Your task to perform on an android device: open app "Expedia: Hotels, Flights & Car" (install if not already installed) Image 0: 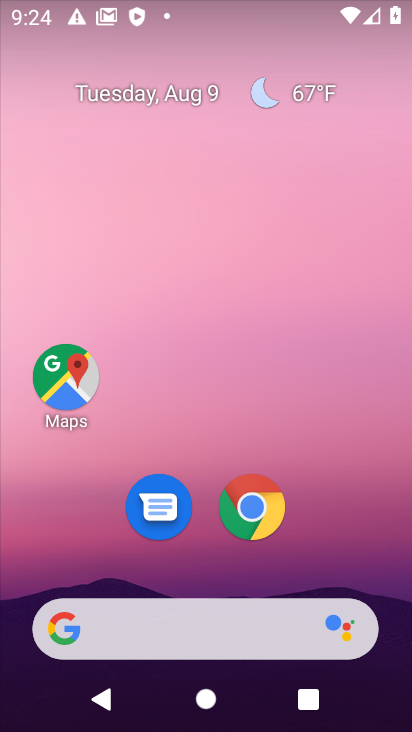
Step 0: drag from (185, 647) to (150, 34)
Your task to perform on an android device: open app "Expedia: Hotels, Flights & Car" (install if not already installed) Image 1: 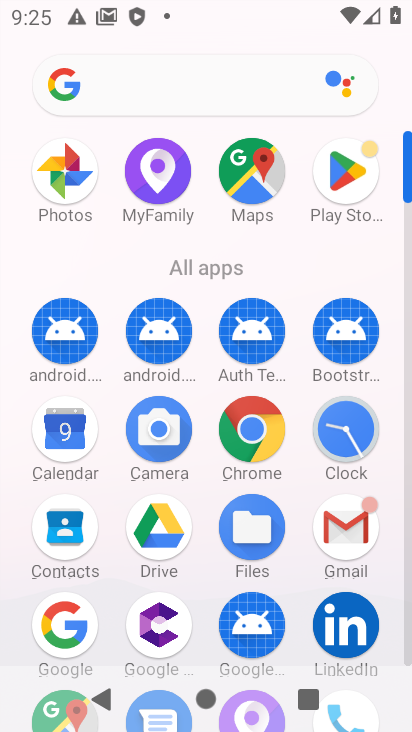
Step 1: click (348, 174)
Your task to perform on an android device: open app "Expedia: Hotels, Flights & Car" (install if not already installed) Image 2: 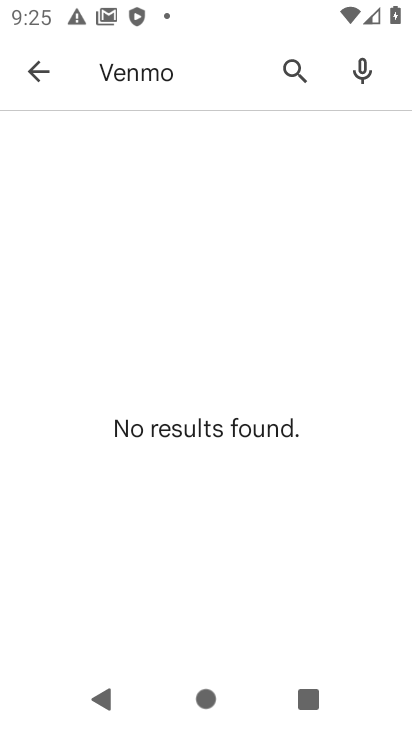
Step 2: click (41, 76)
Your task to perform on an android device: open app "Expedia: Hotels, Flights & Car" (install if not already installed) Image 3: 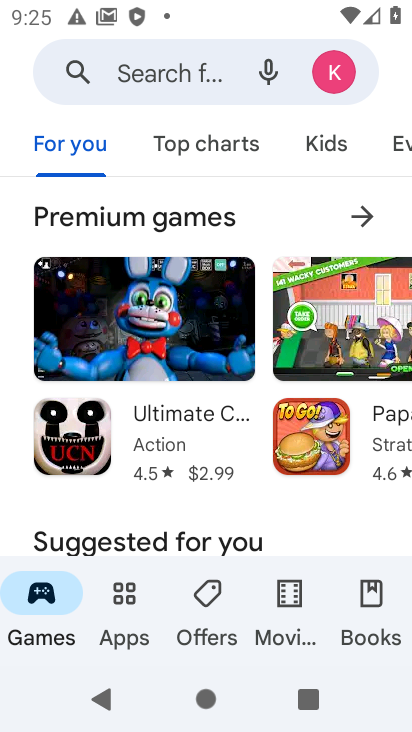
Step 3: click (137, 74)
Your task to perform on an android device: open app "Expedia: Hotels, Flights & Car" (install if not already installed) Image 4: 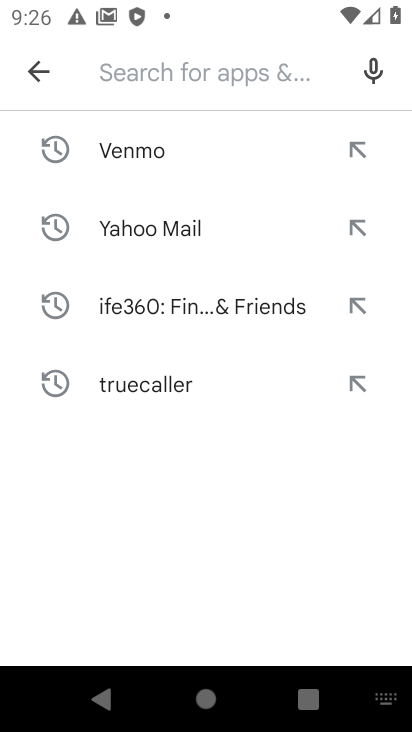
Step 4: type "Expedia: Hotels, Flights & Car"
Your task to perform on an android device: open app "Expedia: Hotels, Flights & Car" (install if not already installed) Image 5: 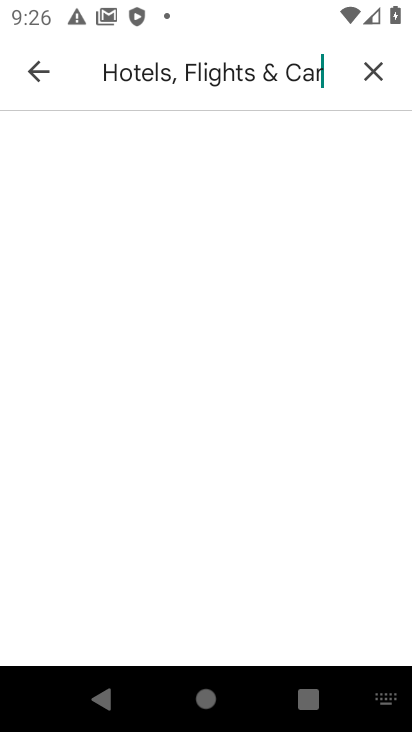
Step 5: press enter
Your task to perform on an android device: open app "Expedia: Hotels, Flights & Car" (install if not already installed) Image 6: 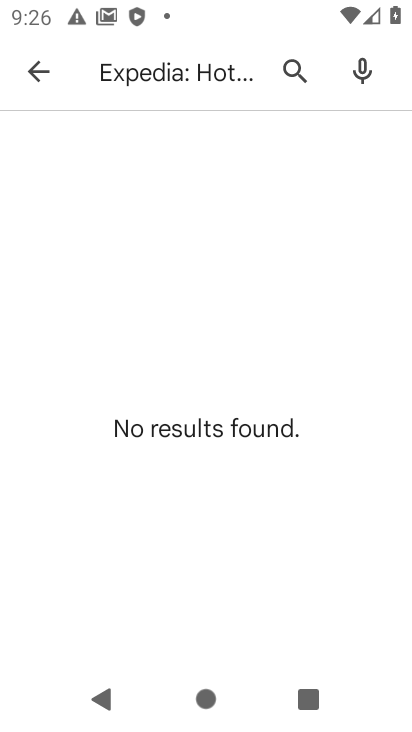
Step 6: click (49, 76)
Your task to perform on an android device: open app "Expedia: Hotels, Flights & Car" (install if not already installed) Image 7: 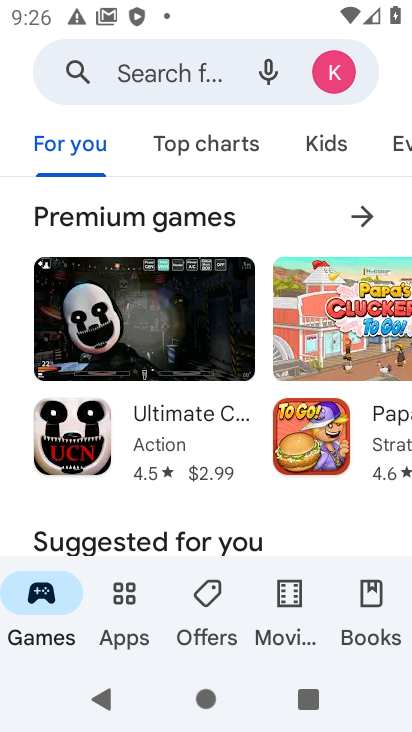
Step 7: click (115, 63)
Your task to perform on an android device: open app "Expedia: Hotels, Flights & Car" (install if not already installed) Image 8: 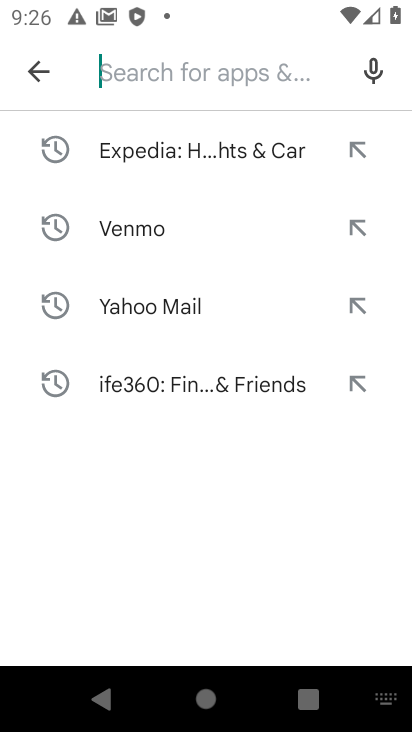
Step 8: click (230, 157)
Your task to perform on an android device: open app "Expedia: Hotels, Flights & Car" (install if not already installed) Image 9: 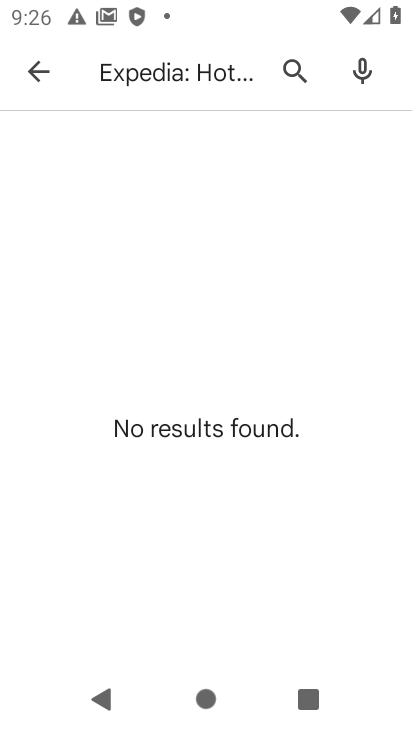
Step 9: click (52, 80)
Your task to perform on an android device: open app "Expedia: Hotels, Flights & Car" (install if not already installed) Image 10: 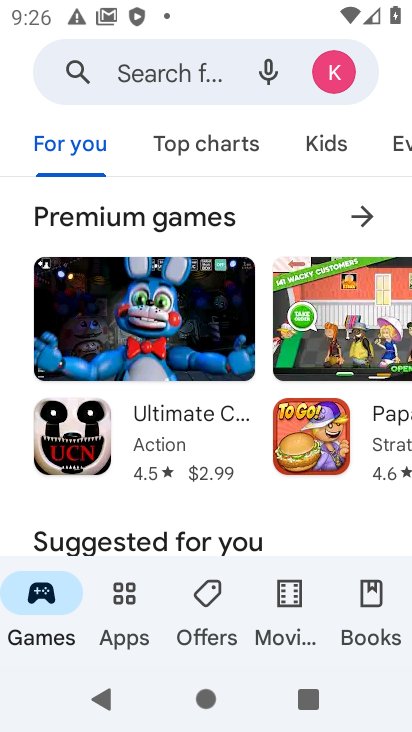
Step 10: task complete